Your task to perform on an android device: Open ESPN.com Image 0: 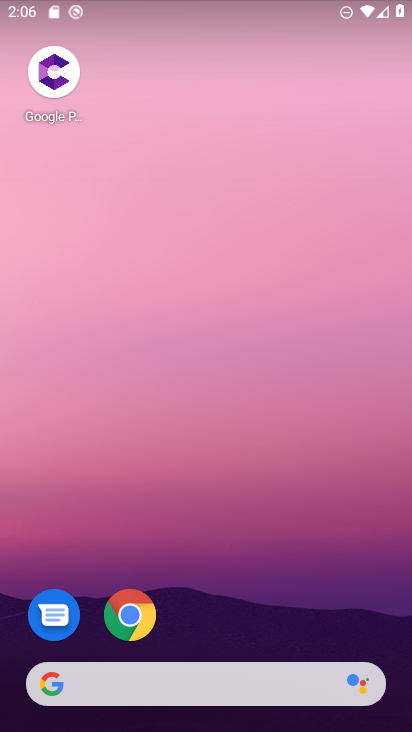
Step 0: click (238, 685)
Your task to perform on an android device: Open ESPN.com Image 1: 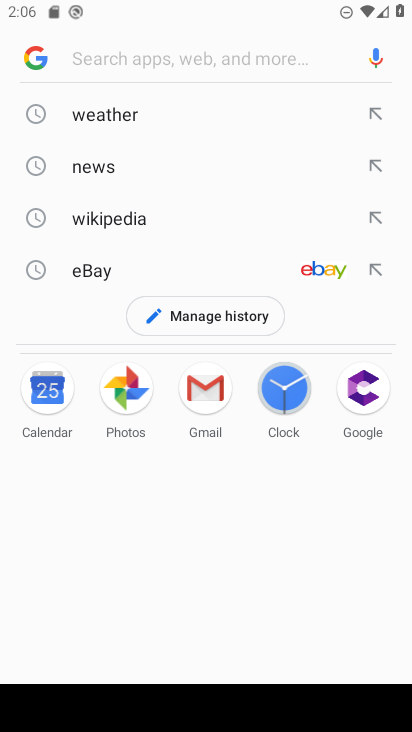
Step 1: type "espn.com"
Your task to perform on an android device: Open ESPN.com Image 2: 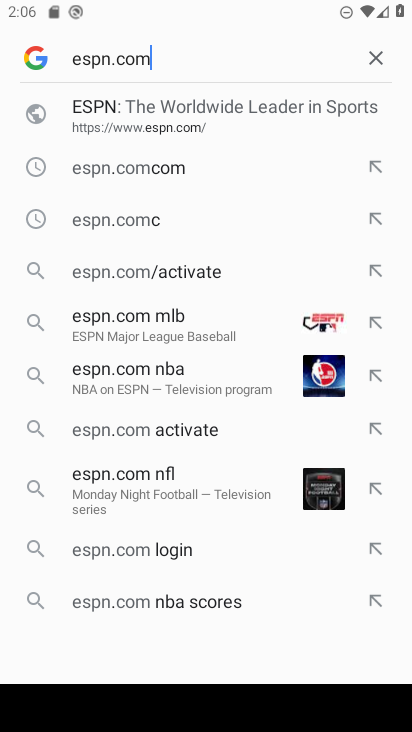
Step 2: click (95, 103)
Your task to perform on an android device: Open ESPN.com Image 3: 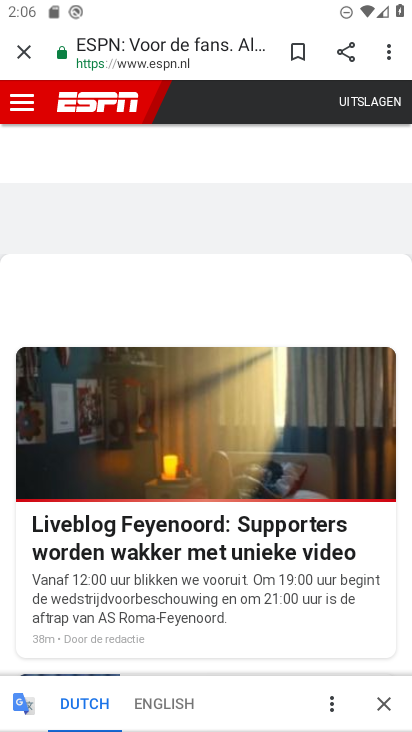
Step 3: task complete